Your task to perform on an android device: Open sound settings Image 0: 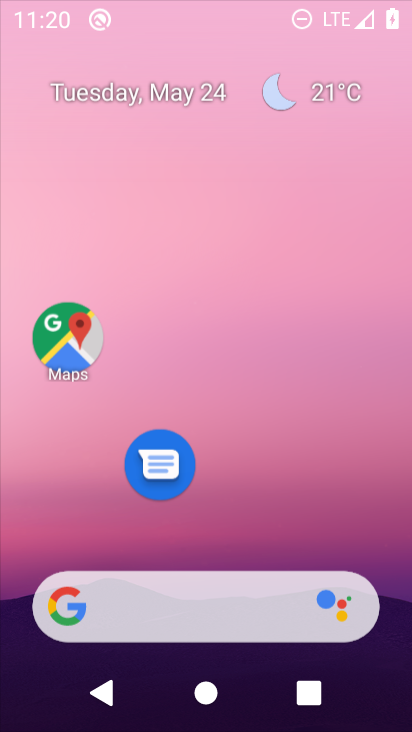
Step 0: click (201, 116)
Your task to perform on an android device: Open sound settings Image 1: 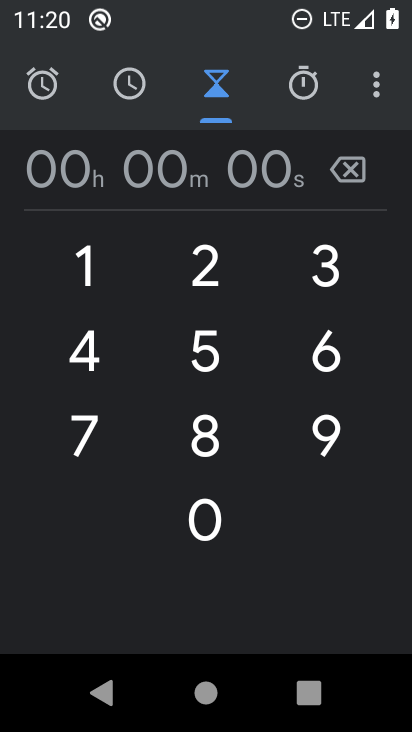
Step 1: press home button
Your task to perform on an android device: Open sound settings Image 2: 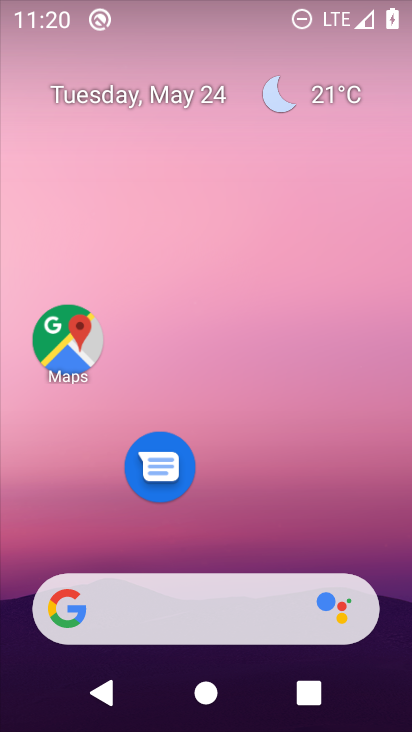
Step 2: drag from (158, 551) to (260, 48)
Your task to perform on an android device: Open sound settings Image 3: 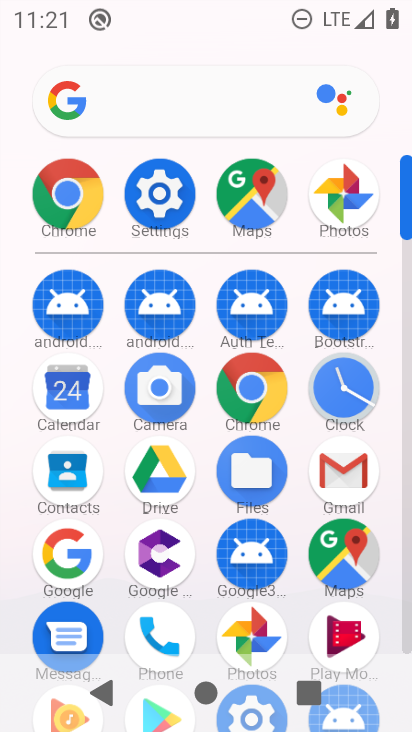
Step 3: click (152, 208)
Your task to perform on an android device: Open sound settings Image 4: 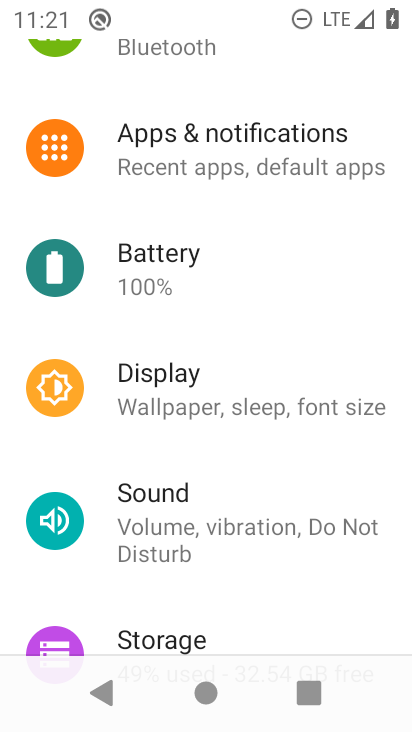
Step 4: click (164, 497)
Your task to perform on an android device: Open sound settings Image 5: 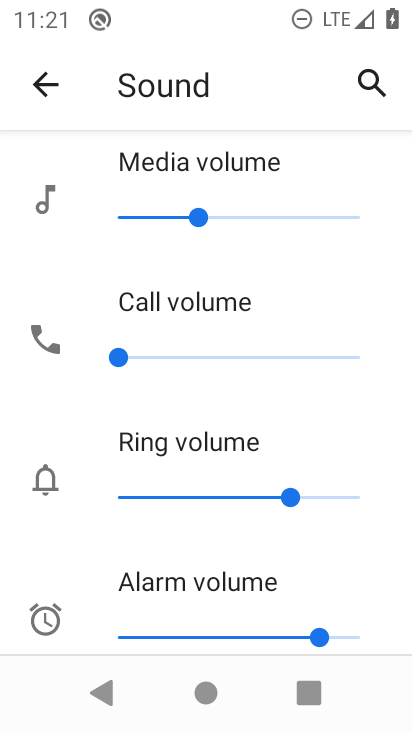
Step 5: task complete